Your task to perform on an android device: turn off location history Image 0: 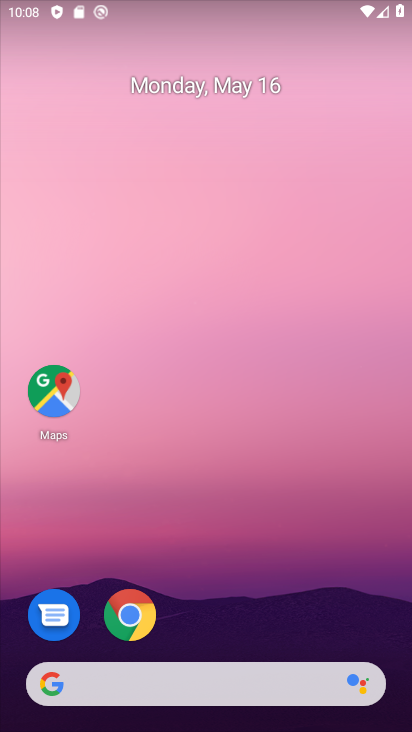
Step 0: drag from (220, 572) to (337, 92)
Your task to perform on an android device: turn off location history Image 1: 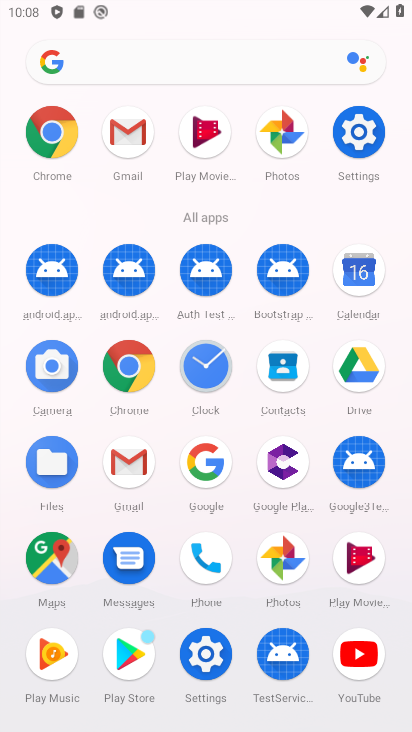
Step 1: click (364, 127)
Your task to perform on an android device: turn off location history Image 2: 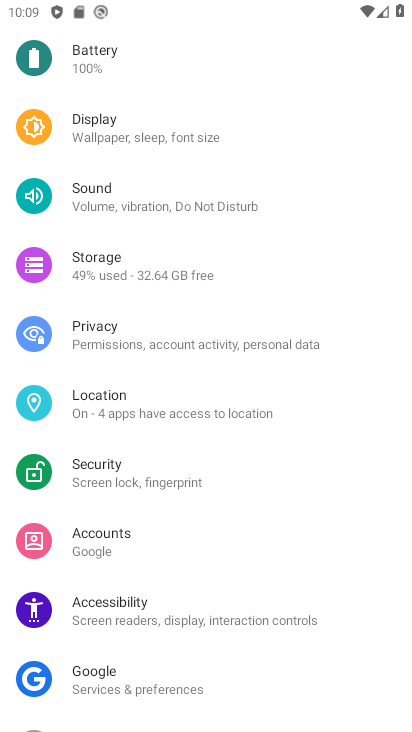
Step 2: click (167, 405)
Your task to perform on an android device: turn off location history Image 3: 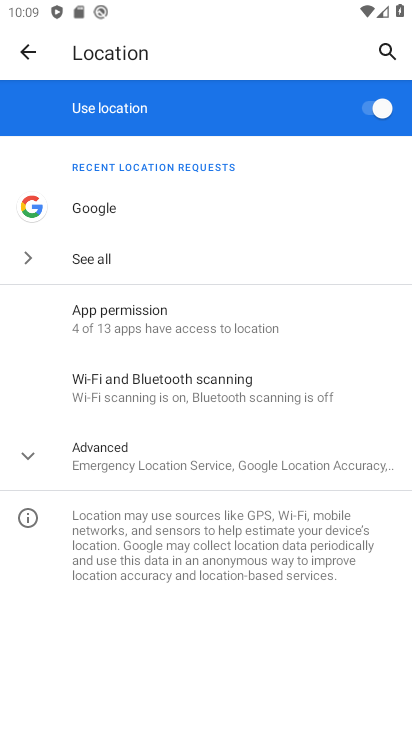
Step 3: click (172, 456)
Your task to perform on an android device: turn off location history Image 4: 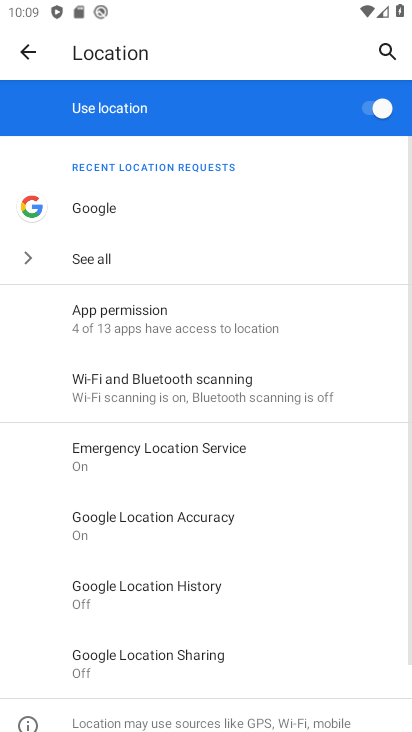
Step 4: click (135, 593)
Your task to perform on an android device: turn off location history Image 5: 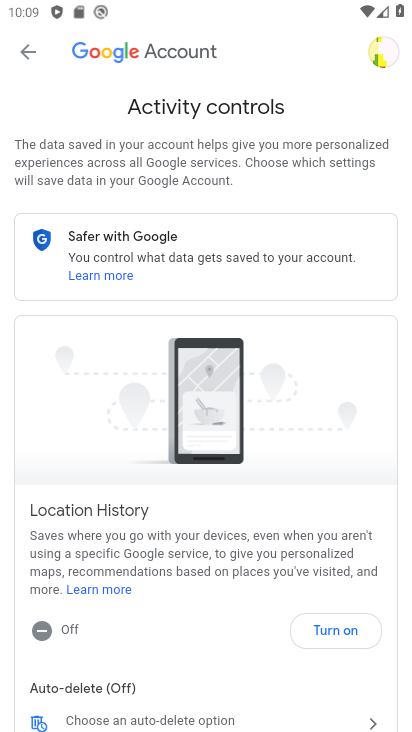
Step 5: task complete